Your task to perform on an android device: Clear the cart on walmart. Search for razer kraken on walmart, select the first entry, and add it to the cart. Image 0: 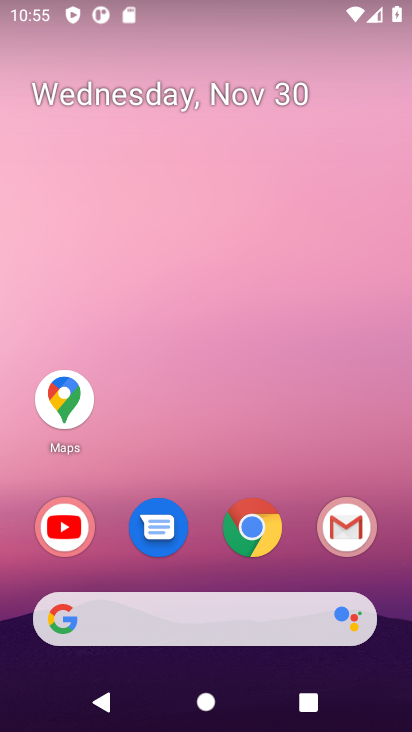
Step 0: click (249, 532)
Your task to perform on an android device: Clear the cart on walmart. Search for razer kraken on walmart, select the first entry, and add it to the cart. Image 1: 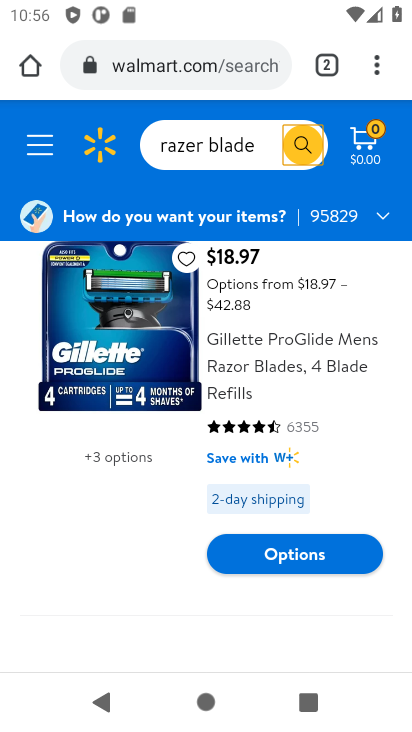
Step 1: click (363, 149)
Your task to perform on an android device: Clear the cart on walmart. Search for razer kraken on walmart, select the first entry, and add it to the cart. Image 2: 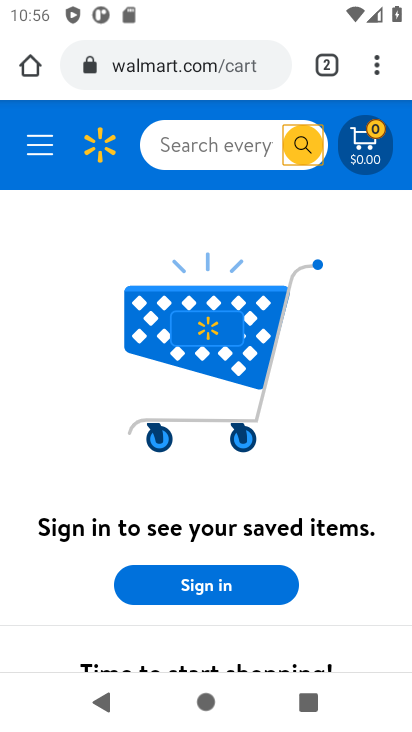
Step 2: click (199, 153)
Your task to perform on an android device: Clear the cart on walmart. Search for razer kraken on walmart, select the first entry, and add it to the cart. Image 3: 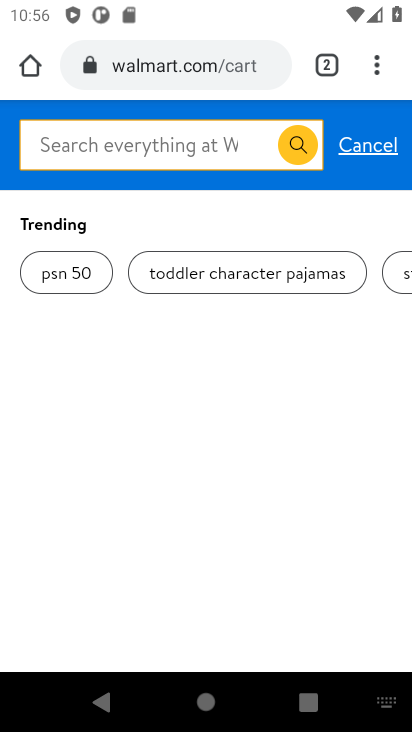
Step 3: type " razer kraken"
Your task to perform on an android device: Clear the cart on walmart. Search for razer kraken on walmart, select the first entry, and add it to the cart. Image 4: 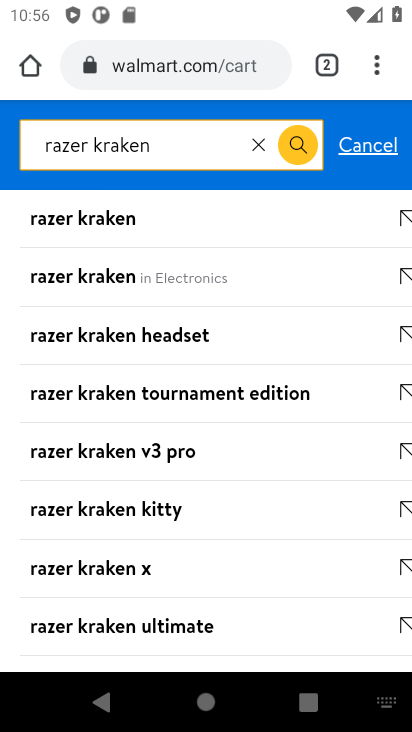
Step 4: click (119, 227)
Your task to perform on an android device: Clear the cart on walmart. Search for razer kraken on walmart, select the first entry, and add it to the cart. Image 5: 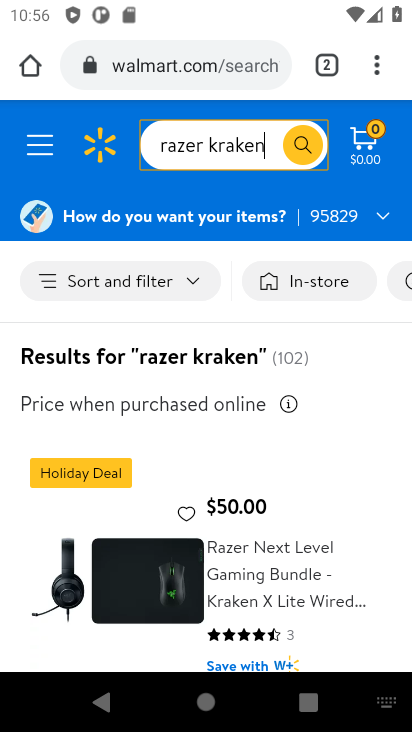
Step 5: drag from (287, 595) to (269, 334)
Your task to perform on an android device: Clear the cart on walmart. Search for razer kraken on walmart, select the first entry, and add it to the cart. Image 6: 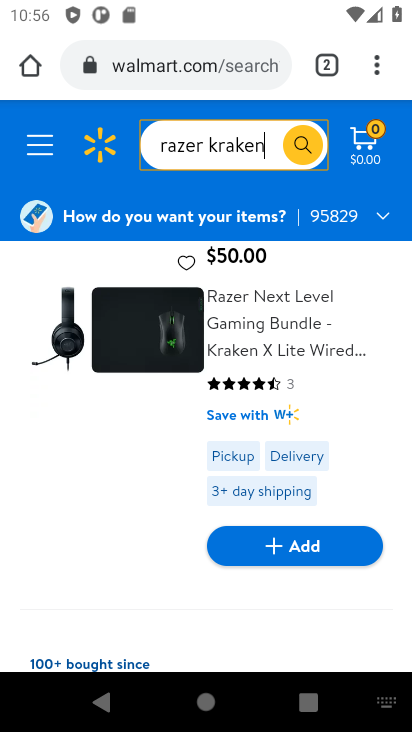
Step 6: click (284, 560)
Your task to perform on an android device: Clear the cart on walmart. Search for razer kraken on walmart, select the first entry, and add it to the cart. Image 7: 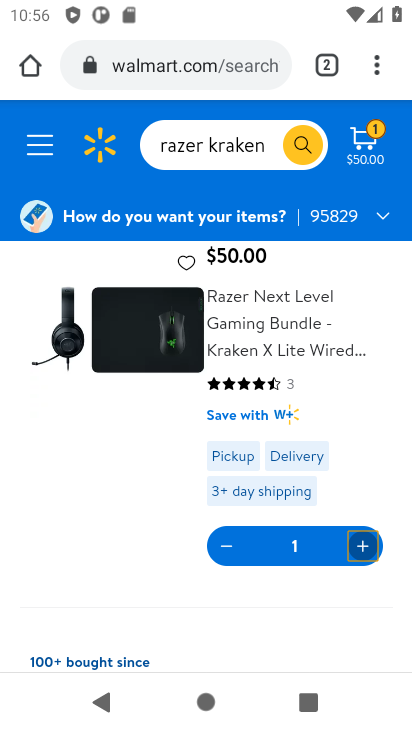
Step 7: task complete